Your task to perform on an android device: Search for pizza restaurants on Maps Image 0: 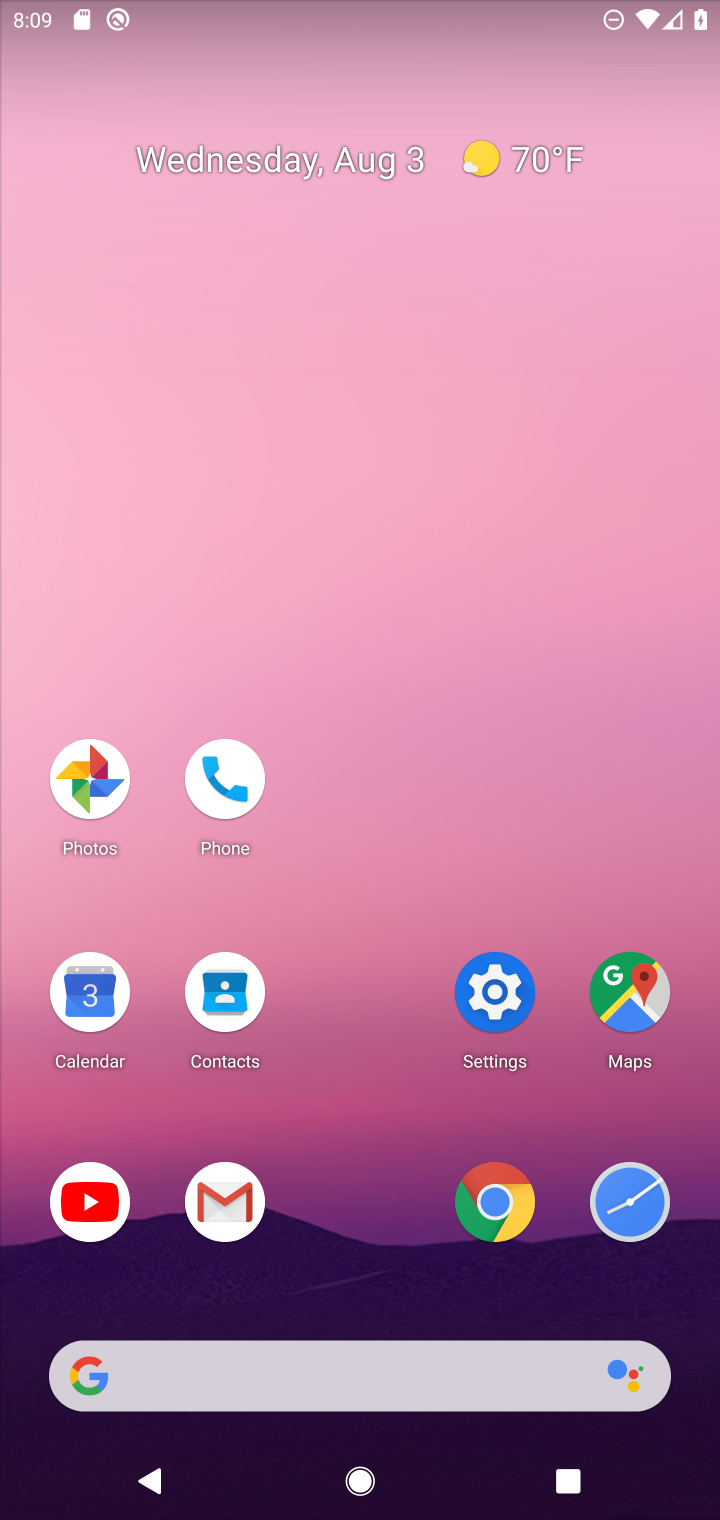
Step 0: click (634, 1012)
Your task to perform on an android device: Search for pizza restaurants on Maps Image 1: 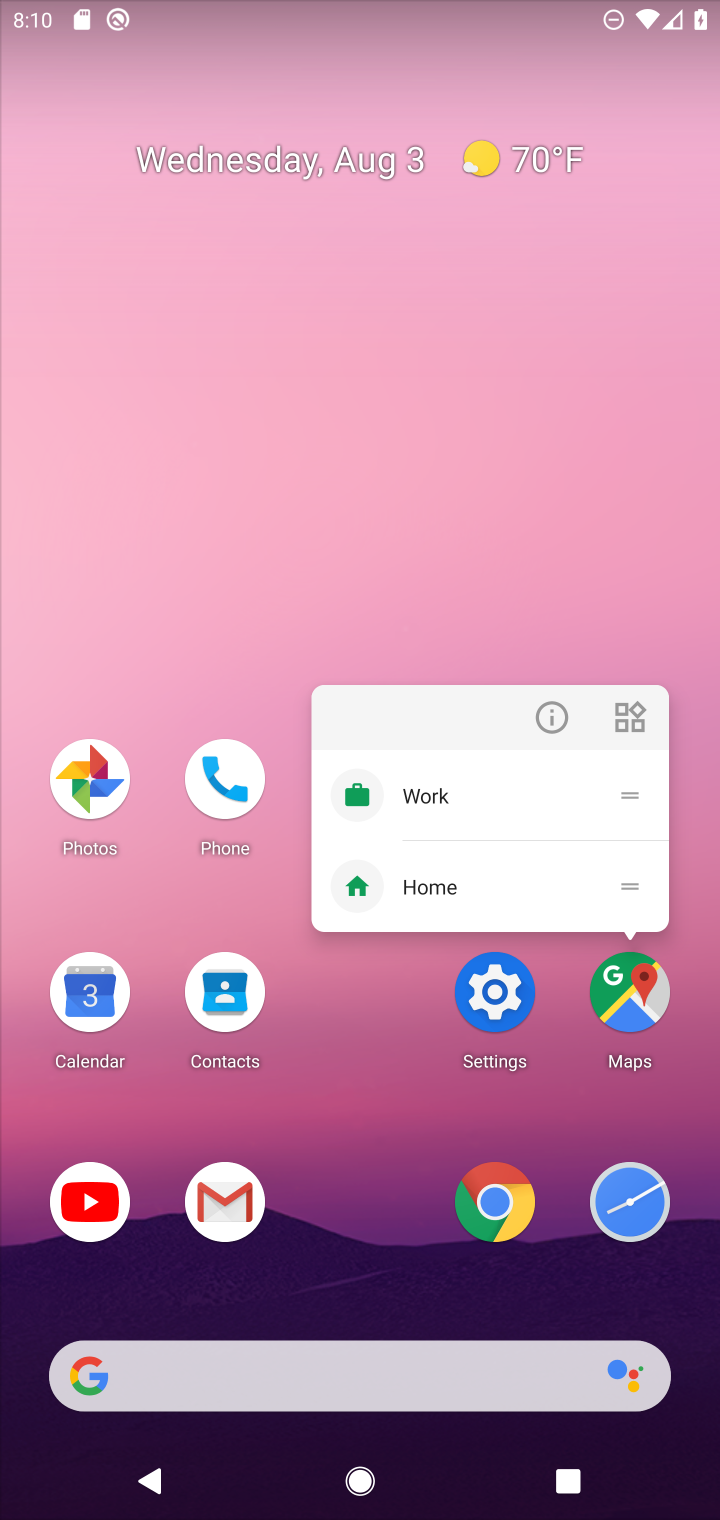
Step 1: click (305, 449)
Your task to perform on an android device: Search for pizza restaurants on Maps Image 2: 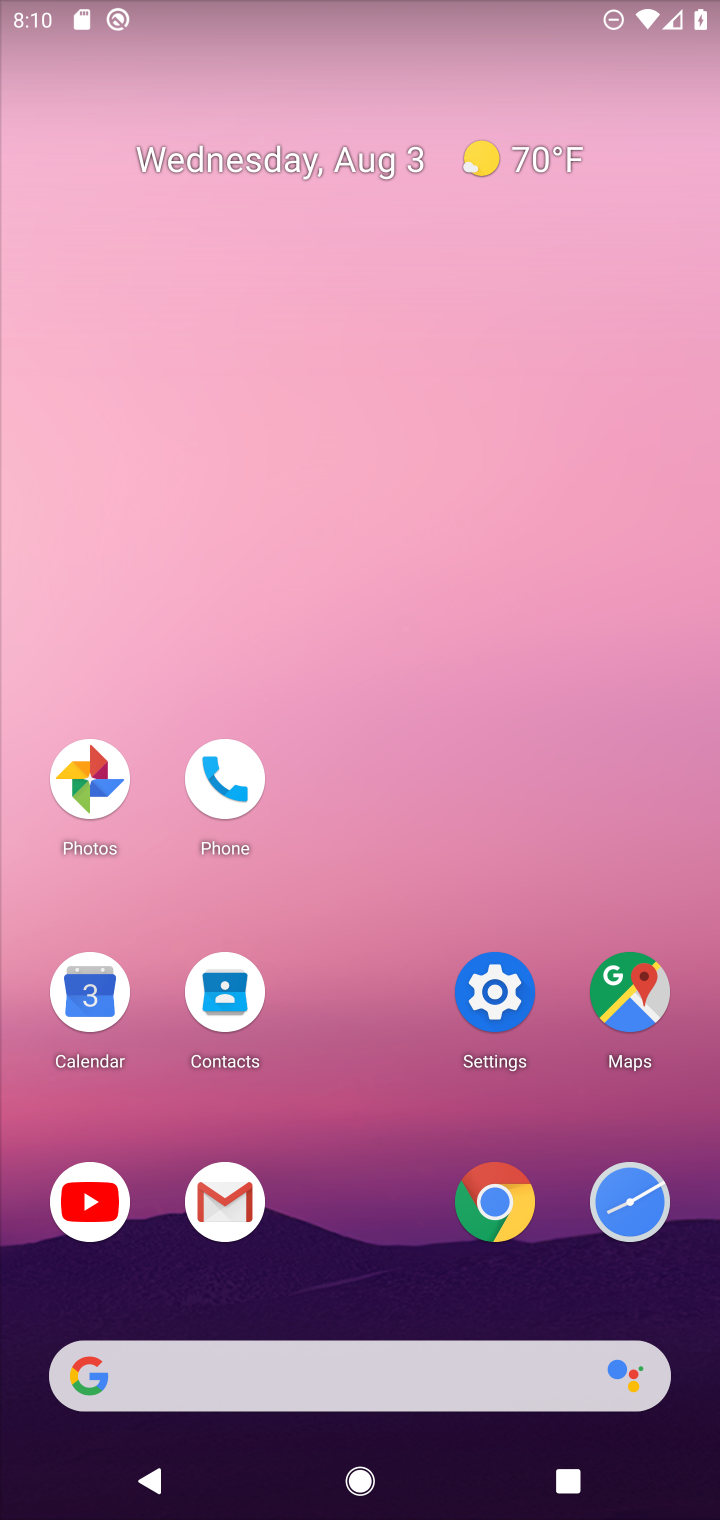
Step 2: click (630, 1007)
Your task to perform on an android device: Search for pizza restaurants on Maps Image 3: 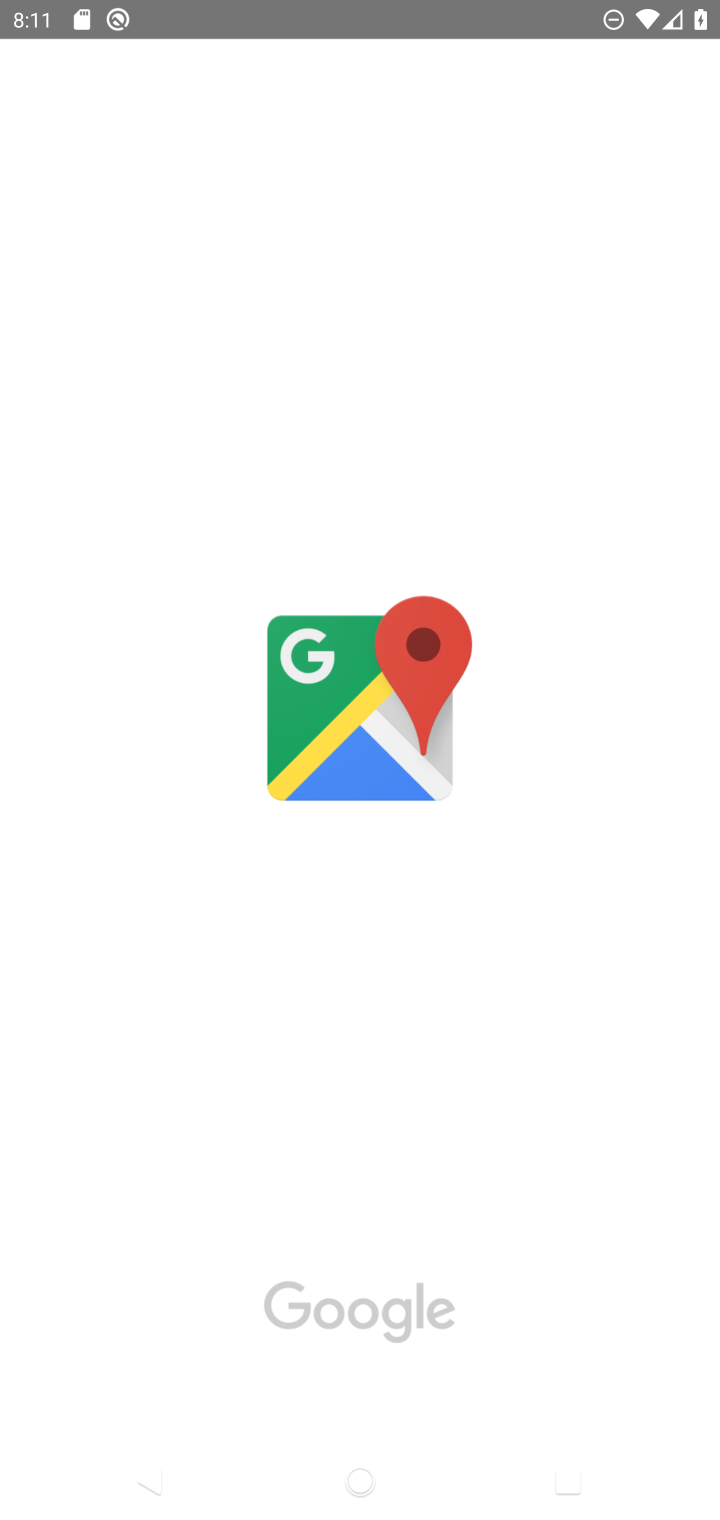
Step 3: task complete